Your task to perform on an android device: set an alarm Image 0: 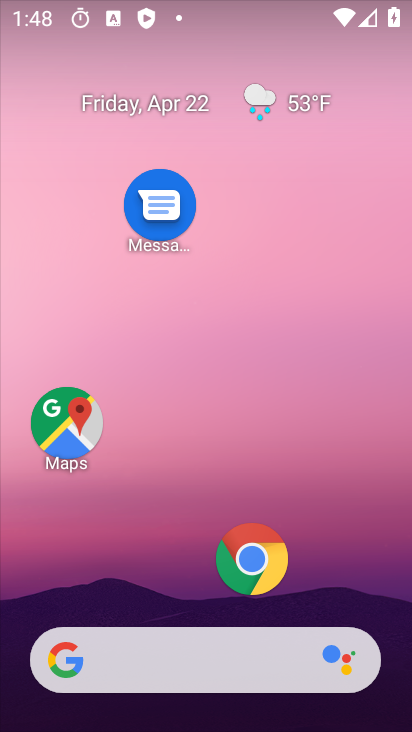
Step 0: drag from (220, 625) to (260, 223)
Your task to perform on an android device: set an alarm Image 1: 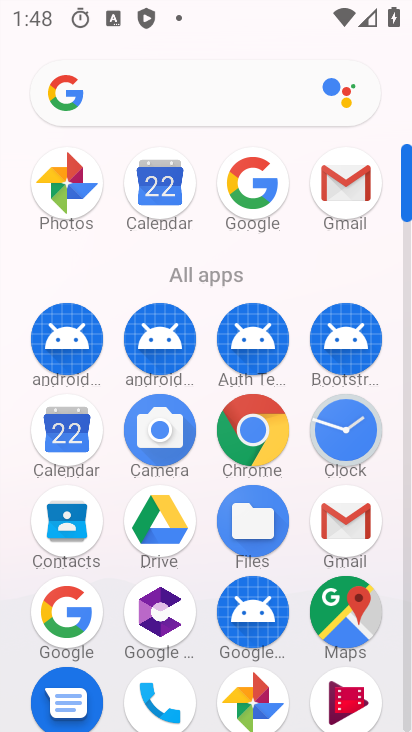
Step 1: click (369, 431)
Your task to perform on an android device: set an alarm Image 2: 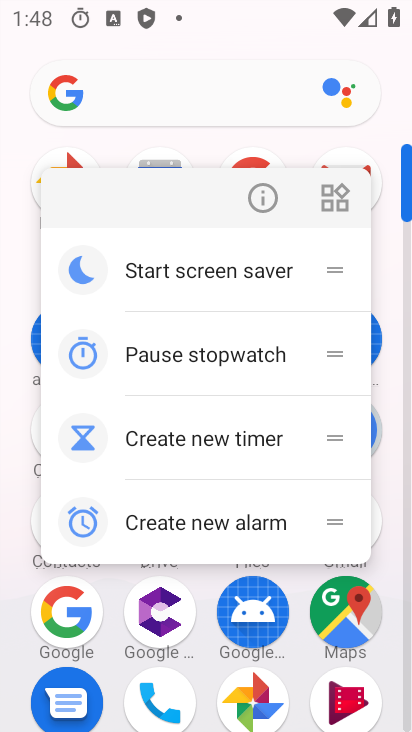
Step 2: click (368, 430)
Your task to perform on an android device: set an alarm Image 3: 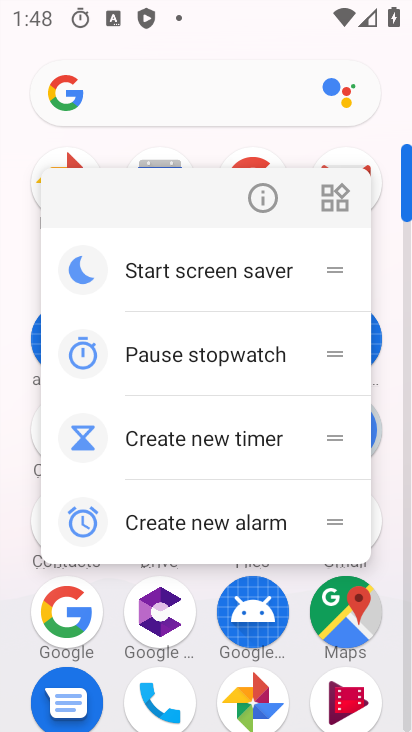
Step 3: click (379, 428)
Your task to perform on an android device: set an alarm Image 4: 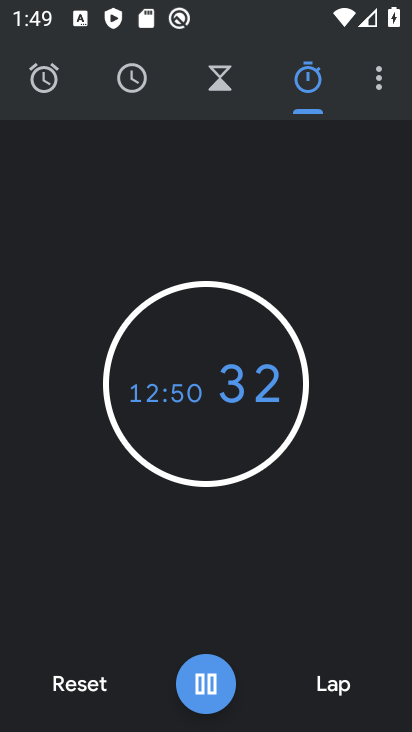
Step 4: click (49, 68)
Your task to perform on an android device: set an alarm Image 5: 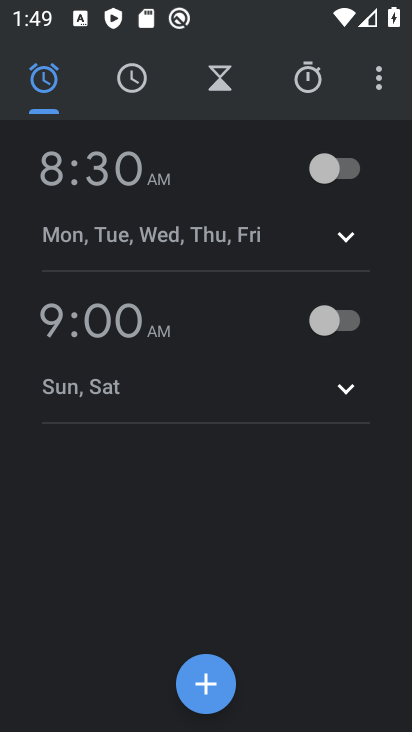
Step 5: click (206, 682)
Your task to perform on an android device: set an alarm Image 6: 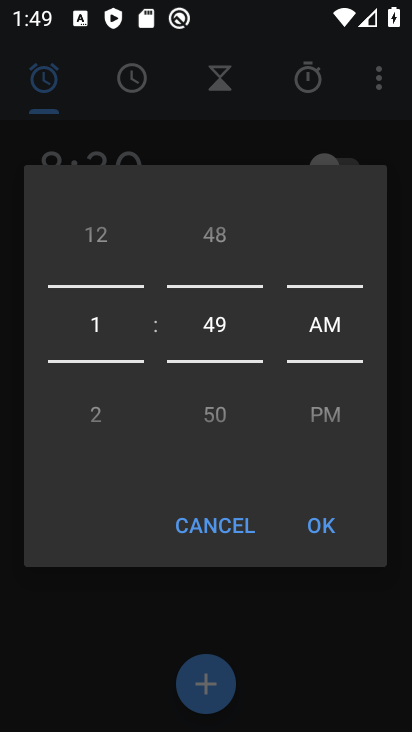
Step 6: click (206, 682)
Your task to perform on an android device: set an alarm Image 7: 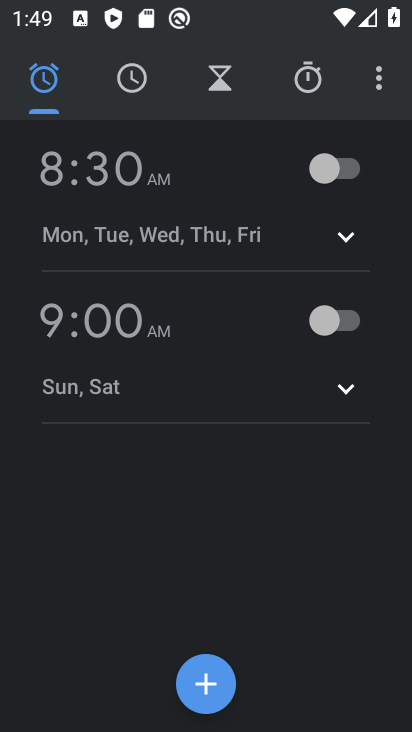
Step 7: click (206, 682)
Your task to perform on an android device: set an alarm Image 8: 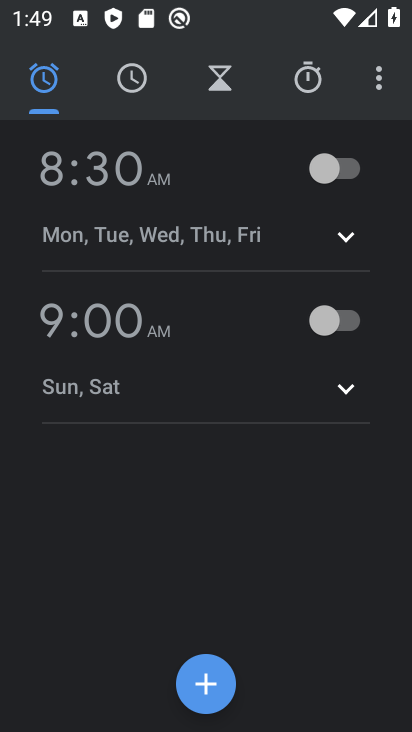
Step 8: click (206, 682)
Your task to perform on an android device: set an alarm Image 9: 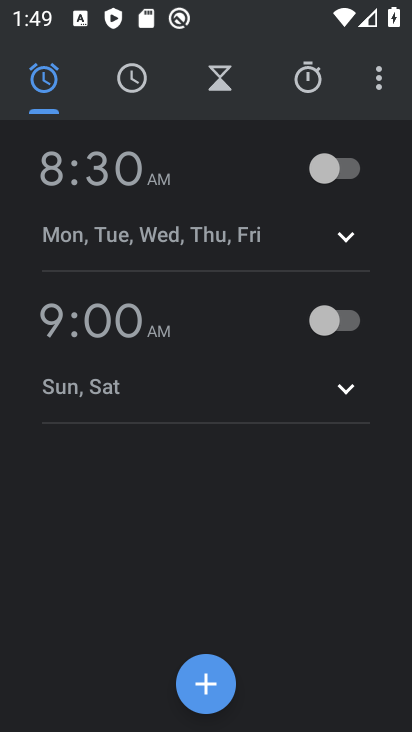
Step 9: click (206, 682)
Your task to perform on an android device: set an alarm Image 10: 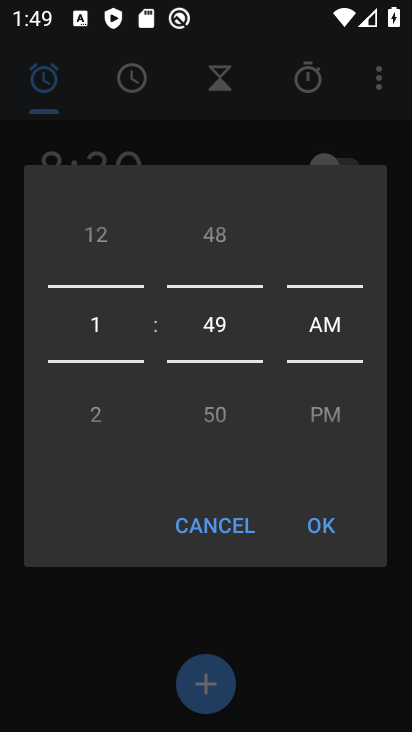
Step 10: drag from (115, 325) to (118, 411)
Your task to perform on an android device: set an alarm Image 11: 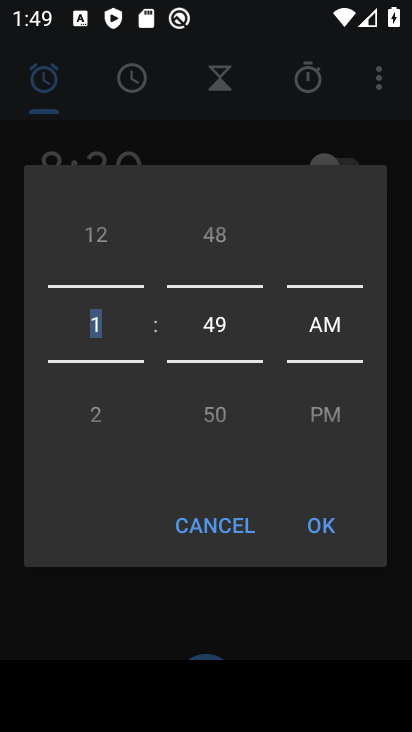
Step 11: drag from (115, 314) to (116, 474)
Your task to perform on an android device: set an alarm Image 12: 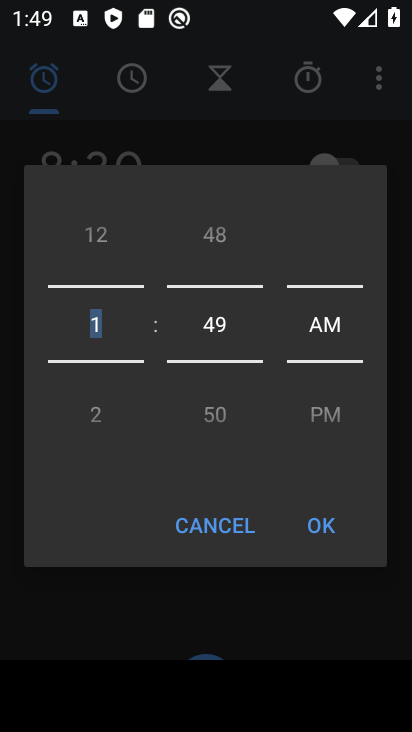
Step 12: drag from (128, 309) to (112, 496)
Your task to perform on an android device: set an alarm Image 13: 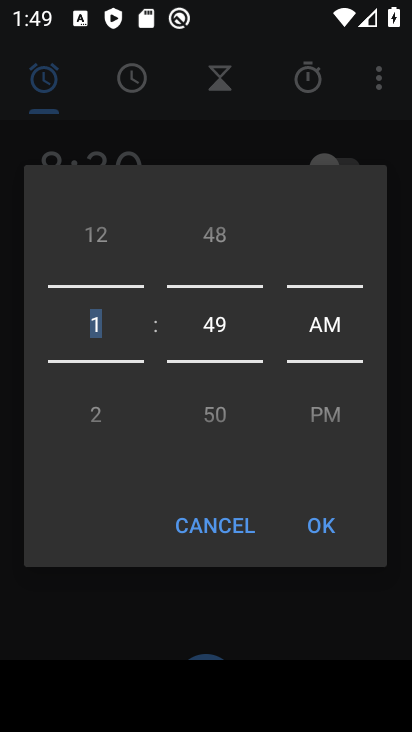
Step 13: drag from (234, 292) to (250, 445)
Your task to perform on an android device: set an alarm Image 14: 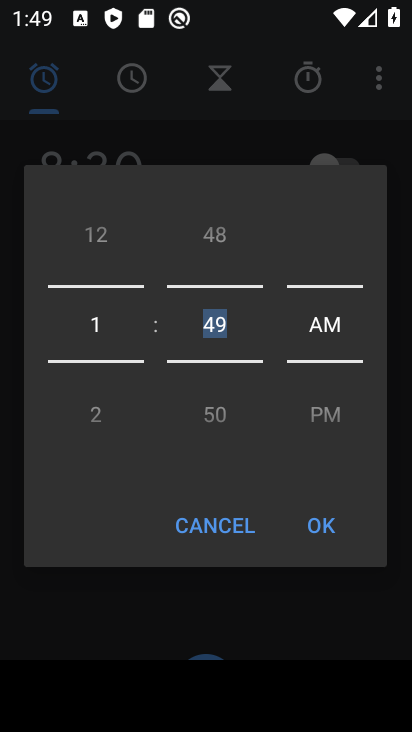
Step 14: drag from (236, 324) to (260, 474)
Your task to perform on an android device: set an alarm Image 15: 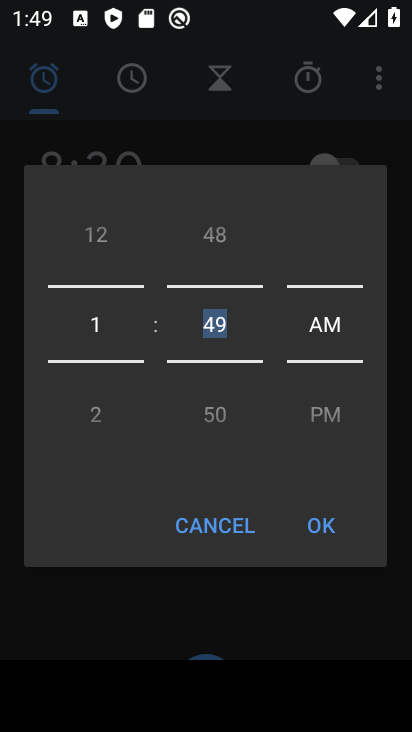
Step 15: drag from (98, 406) to (137, 115)
Your task to perform on an android device: set an alarm Image 16: 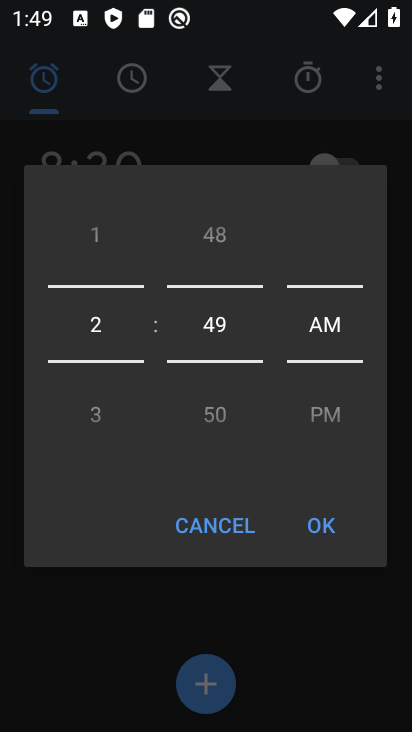
Step 16: click (331, 517)
Your task to perform on an android device: set an alarm Image 17: 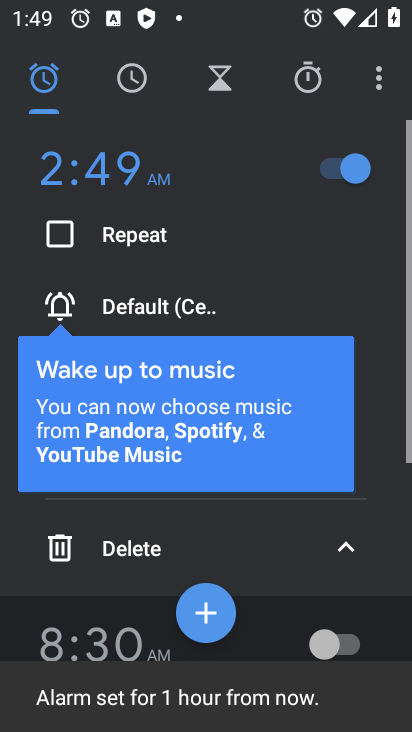
Step 17: task complete